Your task to perform on an android device: search for starred emails in the gmail app Image 0: 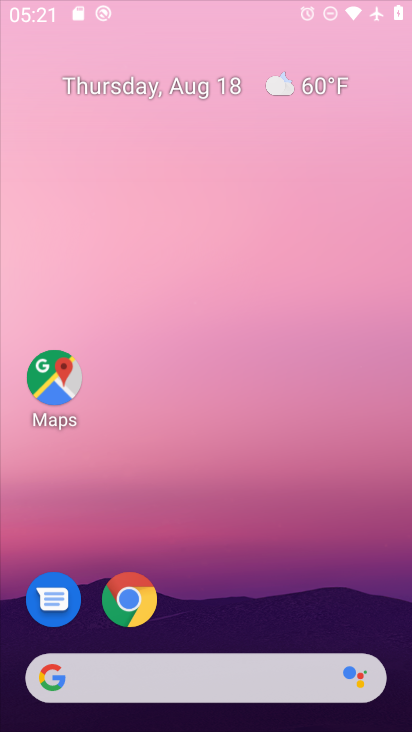
Step 0: press home button
Your task to perform on an android device: search for starred emails in the gmail app Image 1: 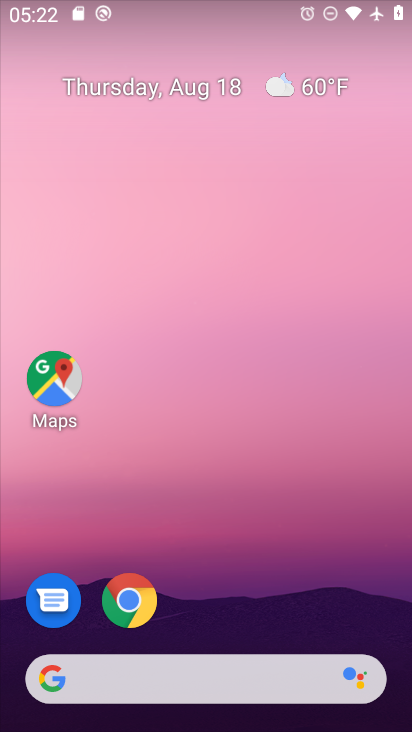
Step 1: drag from (232, 636) to (257, 75)
Your task to perform on an android device: search for starred emails in the gmail app Image 2: 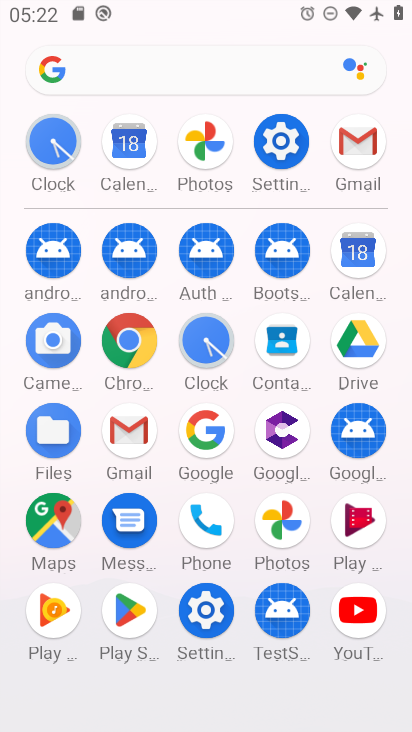
Step 2: click (130, 431)
Your task to perform on an android device: search for starred emails in the gmail app Image 3: 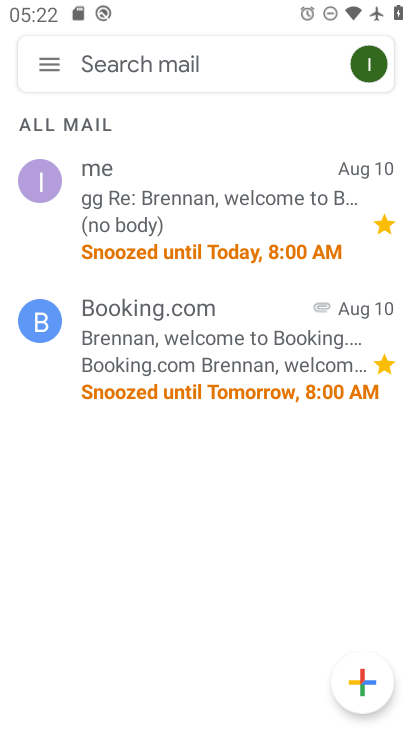
Step 3: click (39, 62)
Your task to perform on an android device: search for starred emails in the gmail app Image 4: 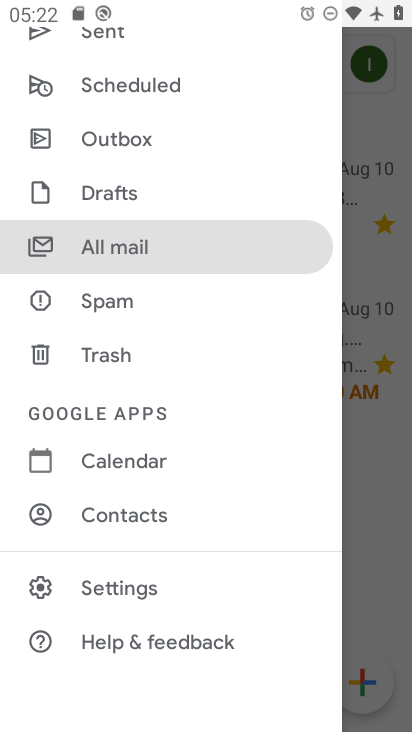
Step 4: drag from (197, 163) to (200, 540)
Your task to perform on an android device: search for starred emails in the gmail app Image 5: 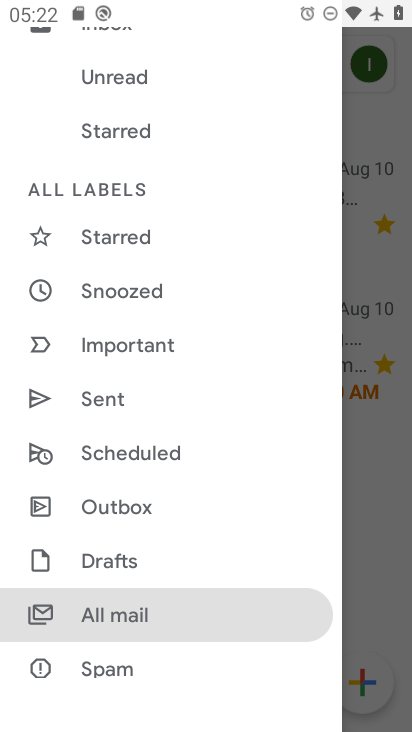
Step 5: click (109, 241)
Your task to perform on an android device: search for starred emails in the gmail app Image 6: 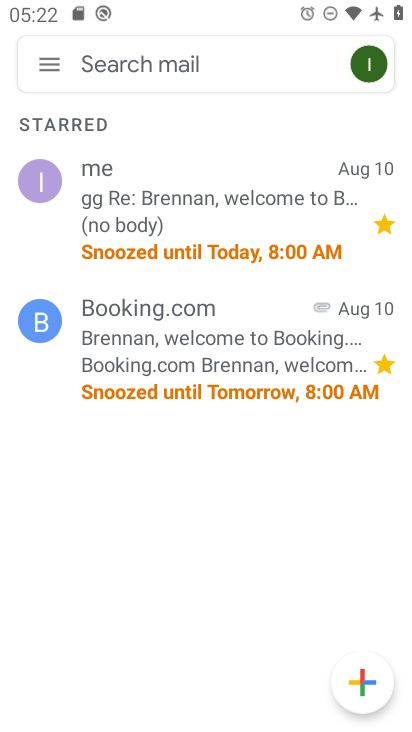
Step 6: task complete